Your task to perform on an android device: open app "Adobe Acrobat Reader: Edit PDF" (install if not already installed), go to login, and select forgot password Image 0: 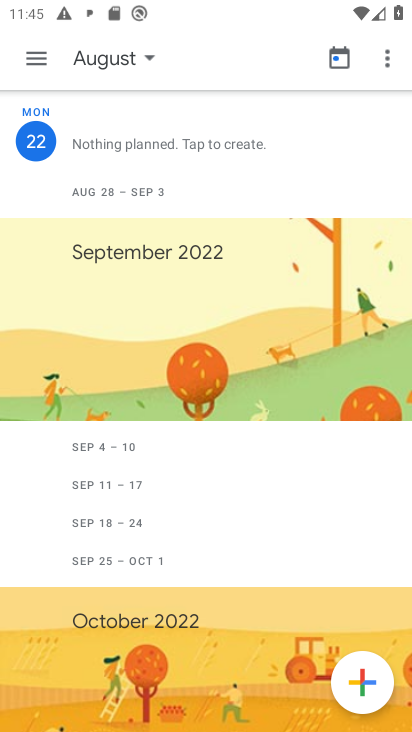
Step 0: press home button
Your task to perform on an android device: open app "Adobe Acrobat Reader: Edit PDF" (install if not already installed), go to login, and select forgot password Image 1: 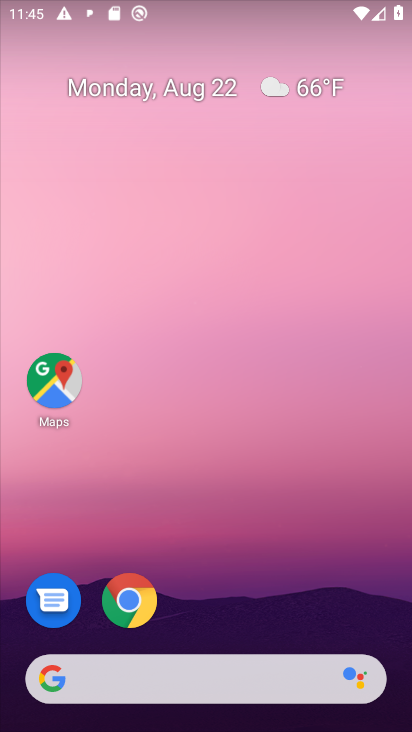
Step 1: drag from (216, 609) to (216, 77)
Your task to perform on an android device: open app "Adobe Acrobat Reader: Edit PDF" (install if not already installed), go to login, and select forgot password Image 2: 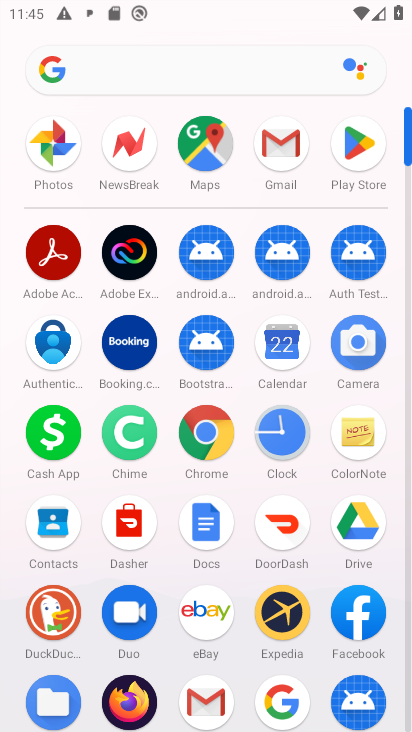
Step 2: click (352, 155)
Your task to perform on an android device: open app "Adobe Acrobat Reader: Edit PDF" (install if not already installed), go to login, and select forgot password Image 3: 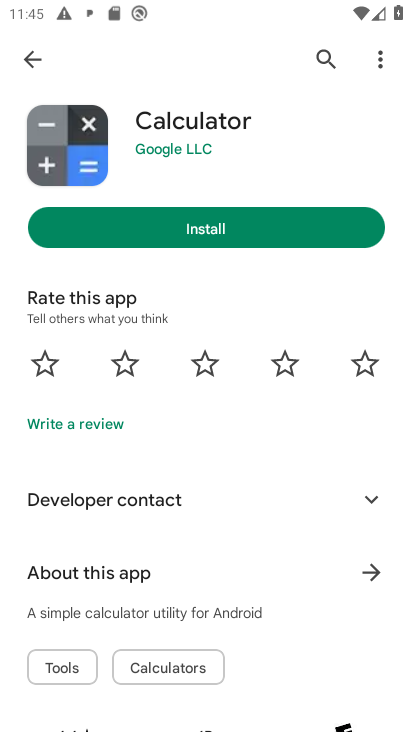
Step 3: click (326, 41)
Your task to perform on an android device: open app "Adobe Acrobat Reader: Edit PDF" (install if not already installed), go to login, and select forgot password Image 4: 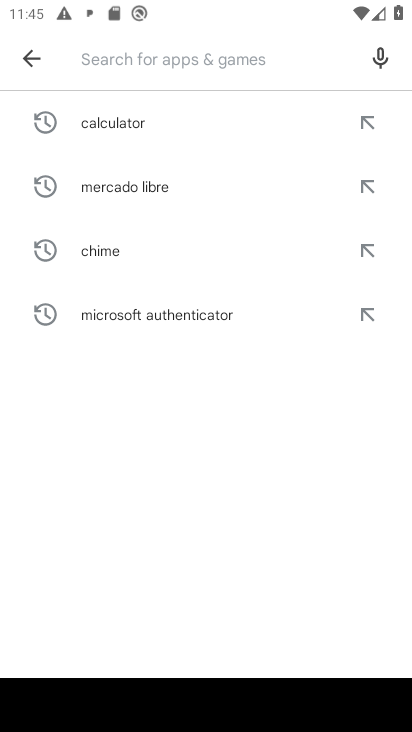
Step 4: type "Adobe Acrobat Reader: Edit PDF"
Your task to perform on an android device: open app "Adobe Acrobat Reader: Edit PDF" (install if not already installed), go to login, and select forgot password Image 5: 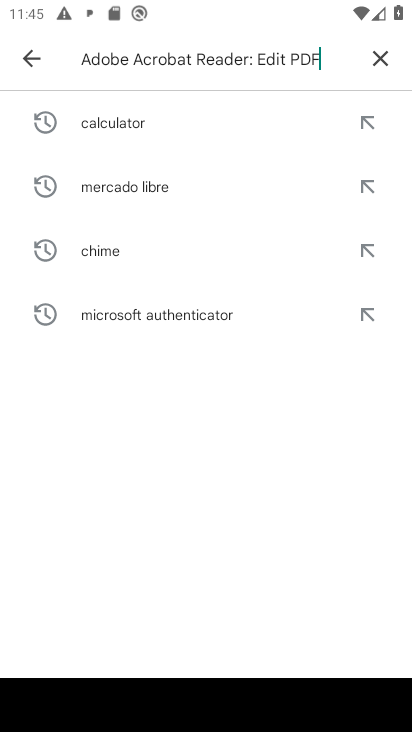
Step 5: type ""
Your task to perform on an android device: open app "Adobe Acrobat Reader: Edit PDF" (install if not already installed), go to login, and select forgot password Image 6: 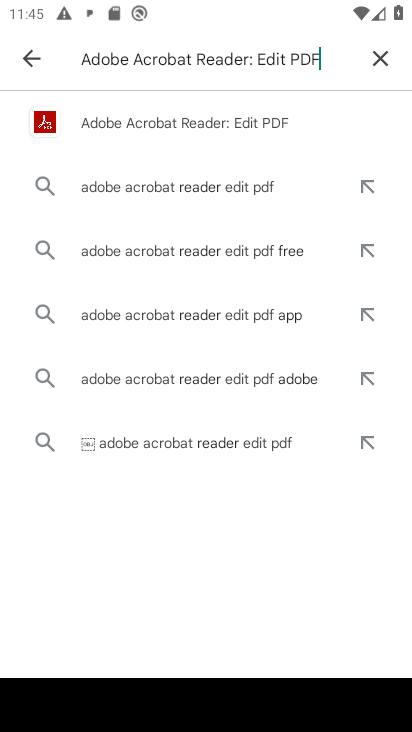
Step 6: click (167, 127)
Your task to perform on an android device: open app "Adobe Acrobat Reader: Edit PDF" (install if not already installed), go to login, and select forgot password Image 7: 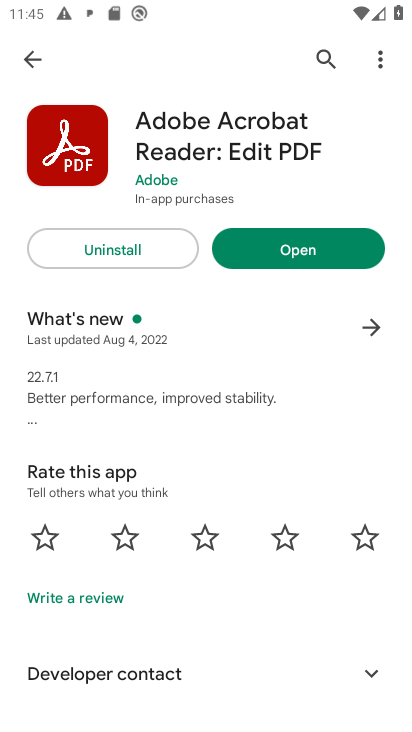
Step 7: click (275, 261)
Your task to perform on an android device: open app "Adobe Acrobat Reader: Edit PDF" (install if not already installed), go to login, and select forgot password Image 8: 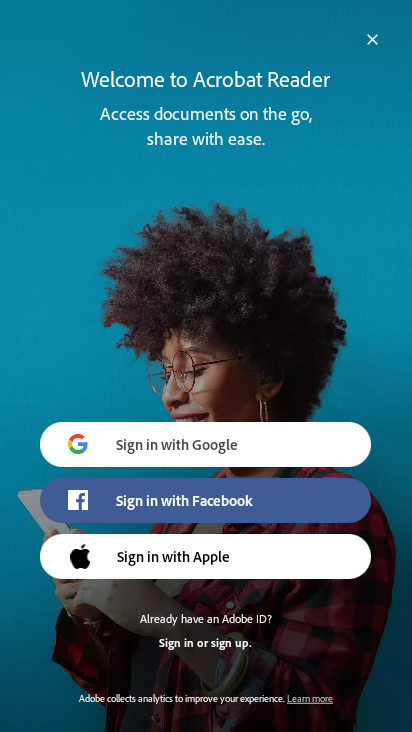
Step 8: task complete